Your task to perform on an android device: find photos in the google photos app Image 0: 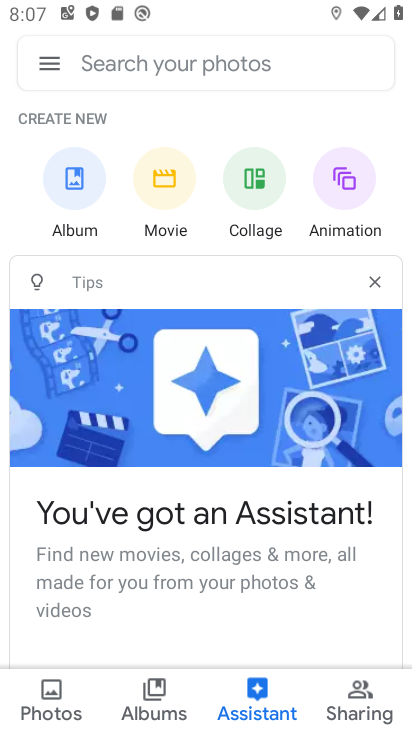
Step 0: press home button
Your task to perform on an android device: find photos in the google photos app Image 1: 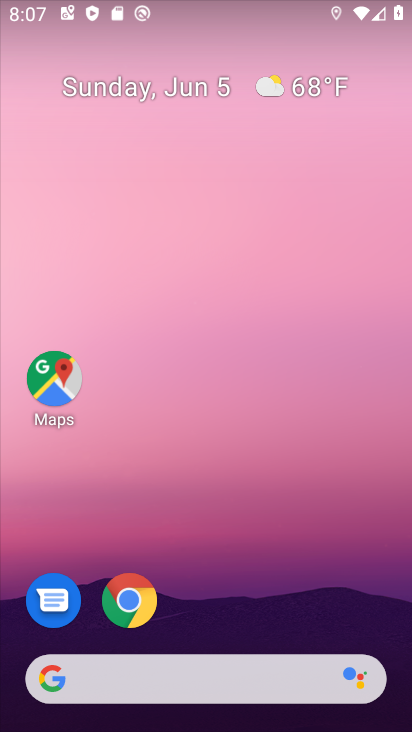
Step 1: drag from (220, 578) to (207, 0)
Your task to perform on an android device: find photos in the google photos app Image 2: 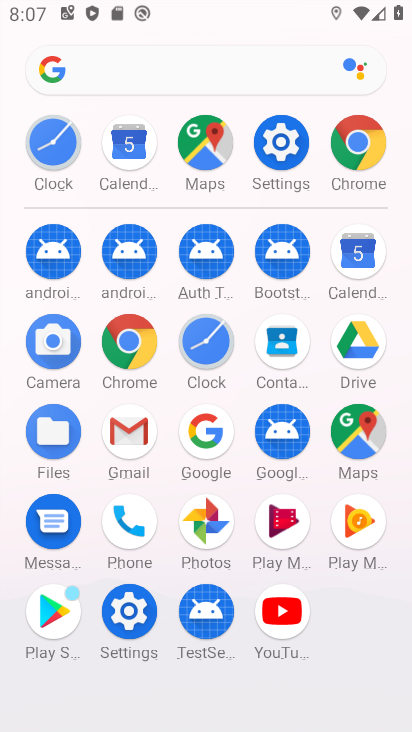
Step 2: click (202, 520)
Your task to perform on an android device: find photos in the google photos app Image 3: 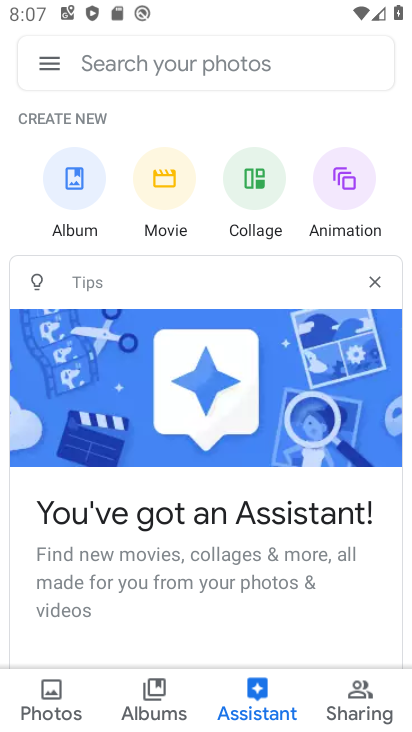
Step 3: click (45, 693)
Your task to perform on an android device: find photos in the google photos app Image 4: 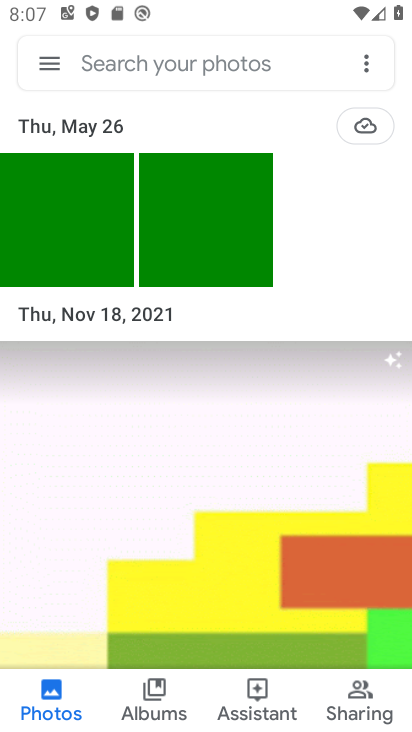
Step 4: task complete